Your task to perform on an android device: Open the phone app and click the voicemail tab. Image 0: 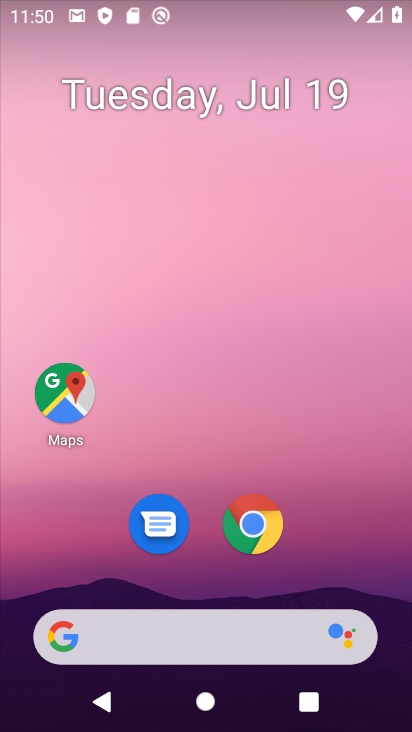
Step 0: press home button
Your task to perform on an android device: Open the phone app and click the voicemail tab. Image 1: 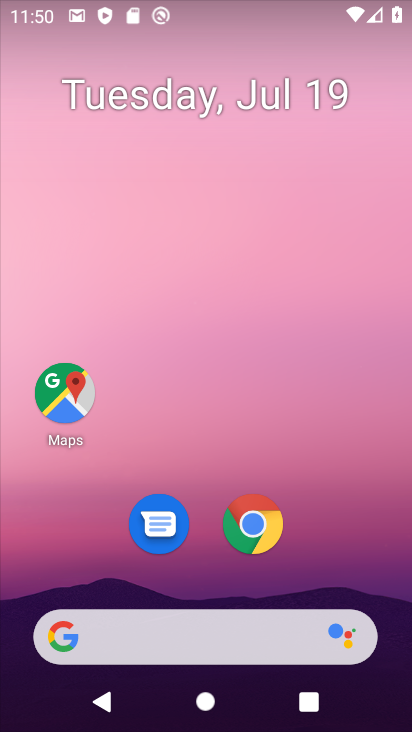
Step 1: drag from (211, 620) to (361, 193)
Your task to perform on an android device: Open the phone app and click the voicemail tab. Image 2: 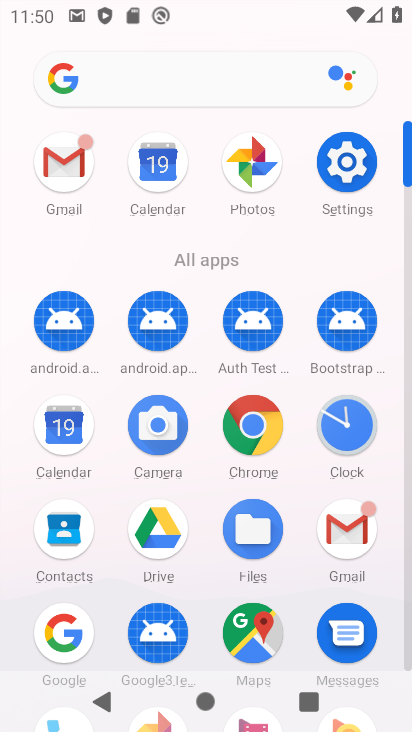
Step 2: drag from (213, 612) to (332, 195)
Your task to perform on an android device: Open the phone app and click the voicemail tab. Image 3: 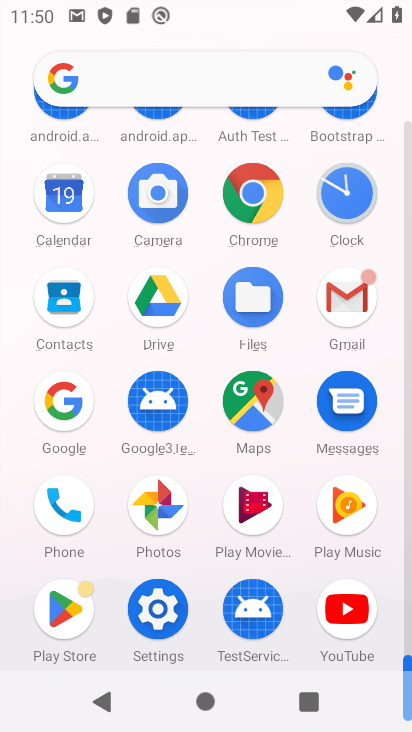
Step 3: drag from (215, 608) to (346, 142)
Your task to perform on an android device: Open the phone app and click the voicemail tab. Image 4: 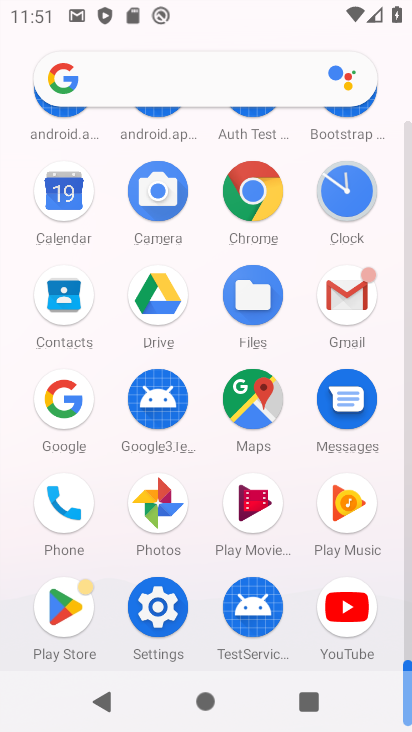
Step 4: click (58, 511)
Your task to perform on an android device: Open the phone app and click the voicemail tab. Image 5: 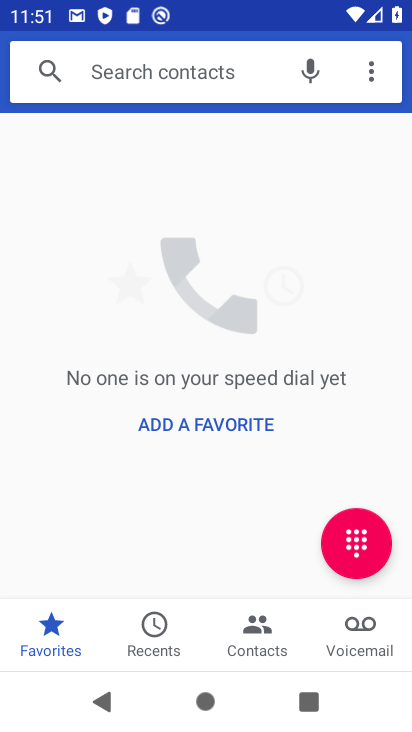
Step 5: click (361, 635)
Your task to perform on an android device: Open the phone app and click the voicemail tab. Image 6: 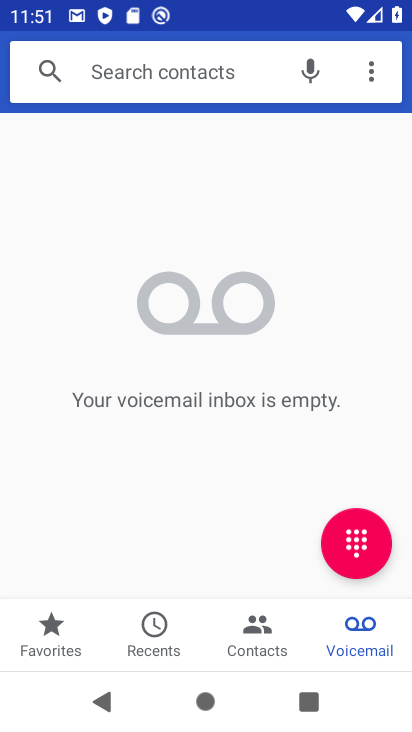
Step 6: task complete